Your task to perform on an android device: turn on javascript in the chrome app Image 0: 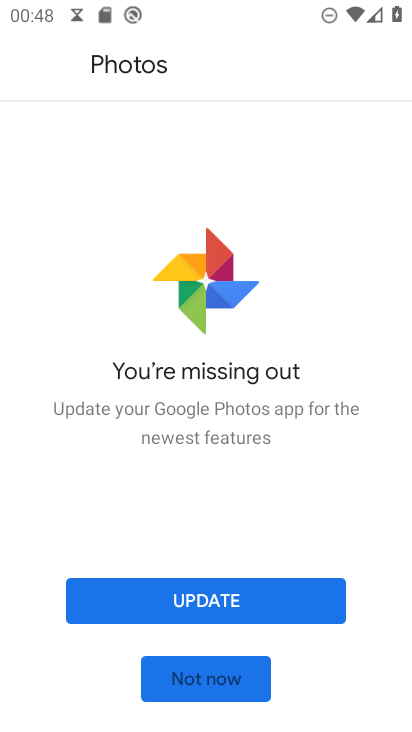
Step 0: press home button
Your task to perform on an android device: turn on javascript in the chrome app Image 1: 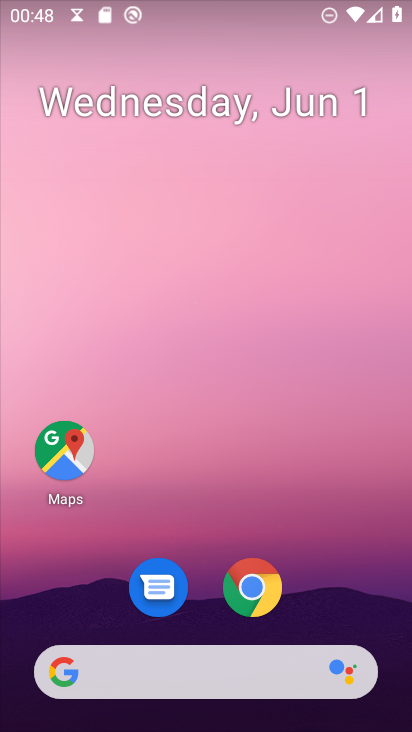
Step 1: click (271, 588)
Your task to perform on an android device: turn on javascript in the chrome app Image 2: 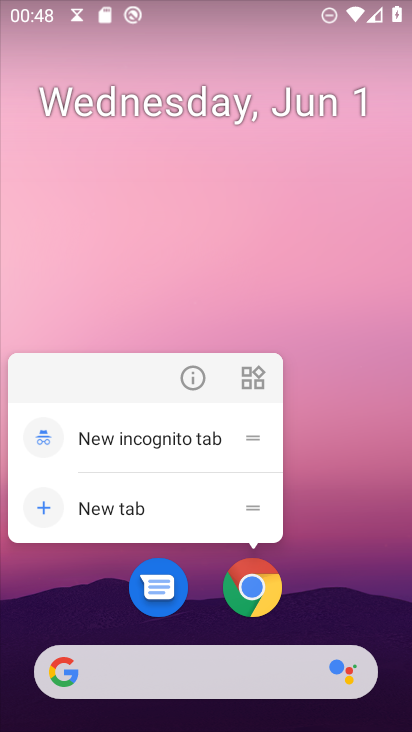
Step 2: click (245, 585)
Your task to perform on an android device: turn on javascript in the chrome app Image 3: 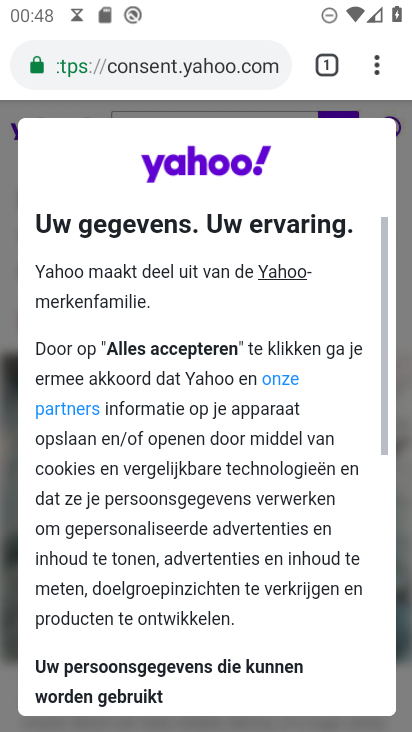
Step 3: click (377, 74)
Your task to perform on an android device: turn on javascript in the chrome app Image 4: 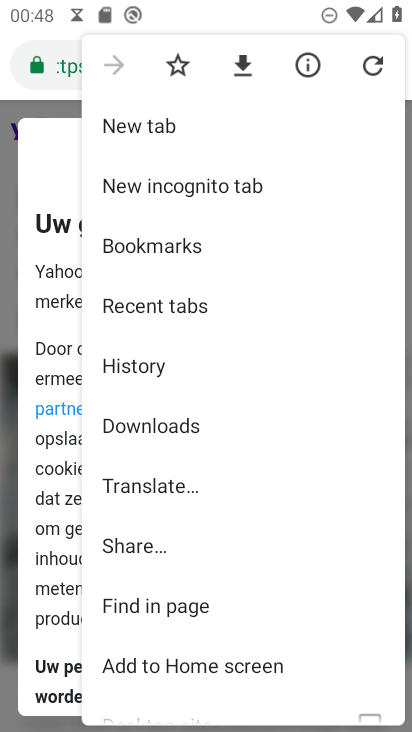
Step 4: drag from (128, 690) to (221, 357)
Your task to perform on an android device: turn on javascript in the chrome app Image 5: 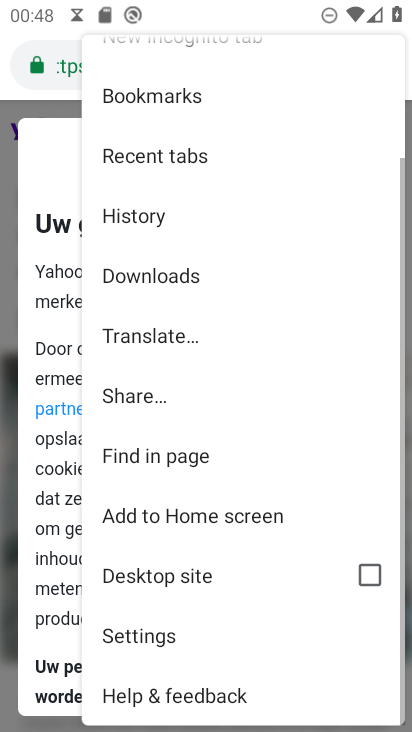
Step 5: click (160, 628)
Your task to perform on an android device: turn on javascript in the chrome app Image 6: 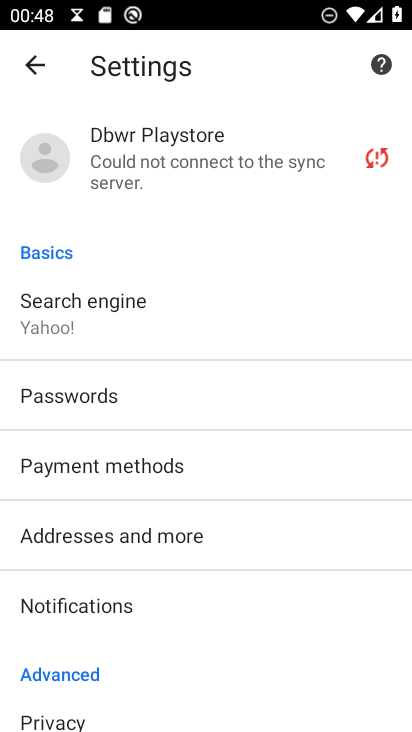
Step 6: drag from (150, 665) to (257, 246)
Your task to perform on an android device: turn on javascript in the chrome app Image 7: 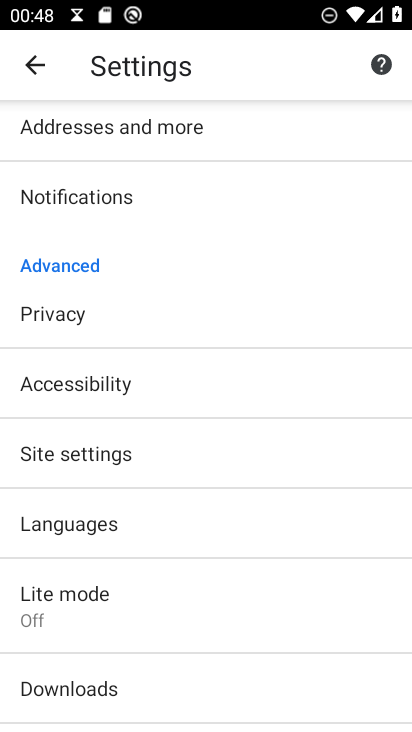
Step 7: click (115, 453)
Your task to perform on an android device: turn on javascript in the chrome app Image 8: 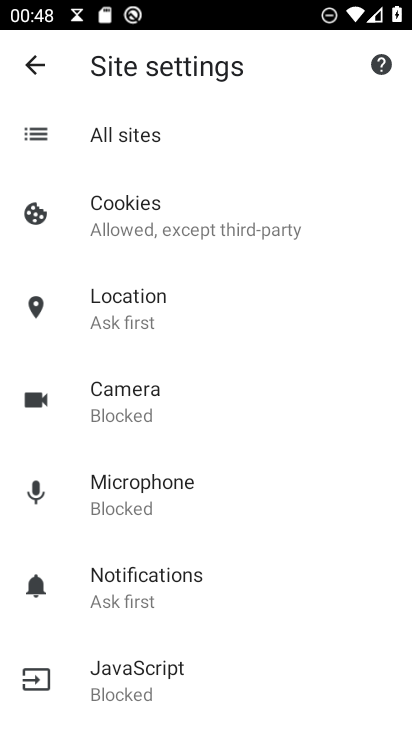
Step 8: click (182, 696)
Your task to perform on an android device: turn on javascript in the chrome app Image 9: 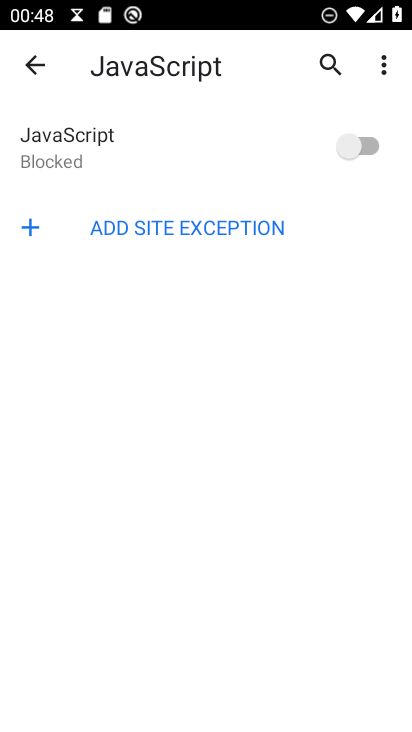
Step 9: click (360, 146)
Your task to perform on an android device: turn on javascript in the chrome app Image 10: 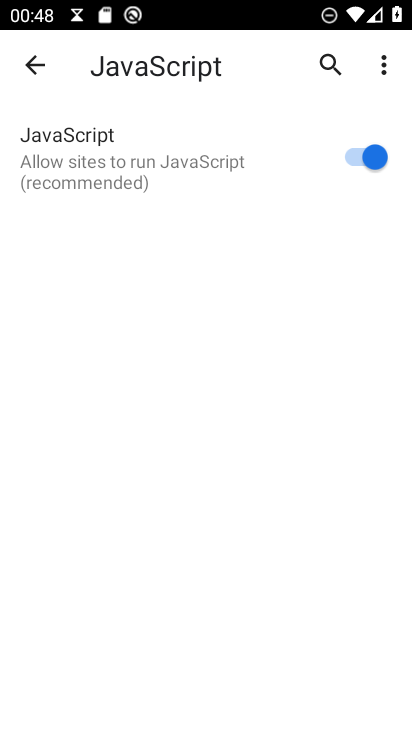
Step 10: task complete